Your task to perform on an android device: Turn off the flashlight Image 0: 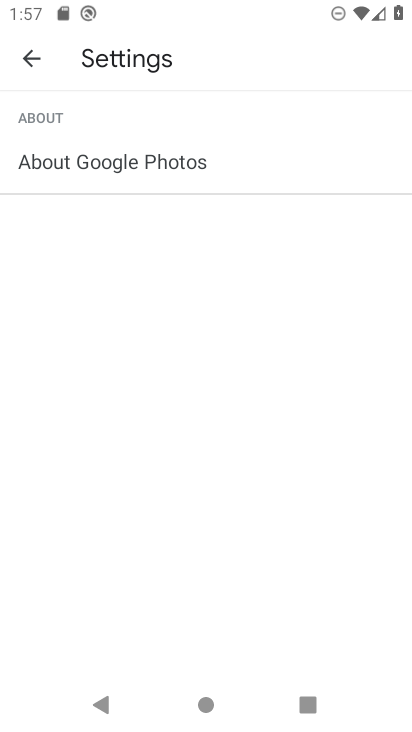
Step 0: press home button
Your task to perform on an android device: Turn off the flashlight Image 1: 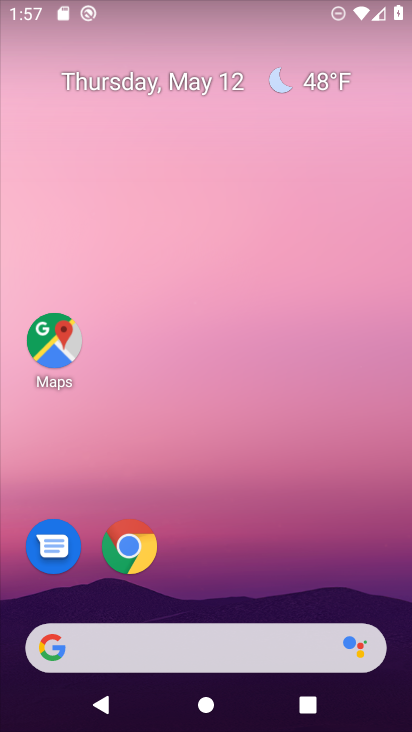
Step 1: drag from (273, 656) to (155, 219)
Your task to perform on an android device: Turn off the flashlight Image 2: 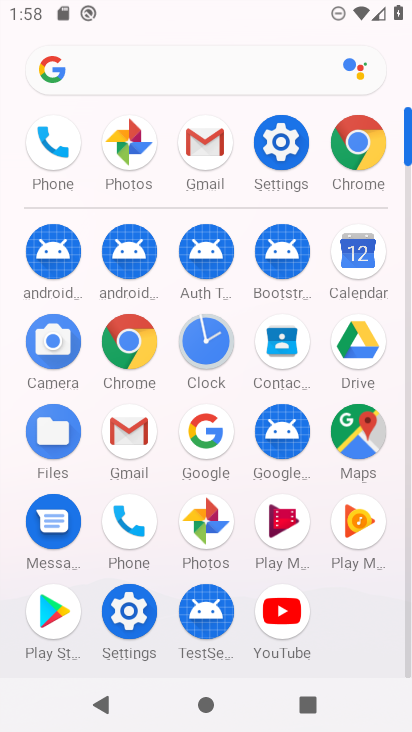
Step 2: click (280, 160)
Your task to perform on an android device: Turn off the flashlight Image 3: 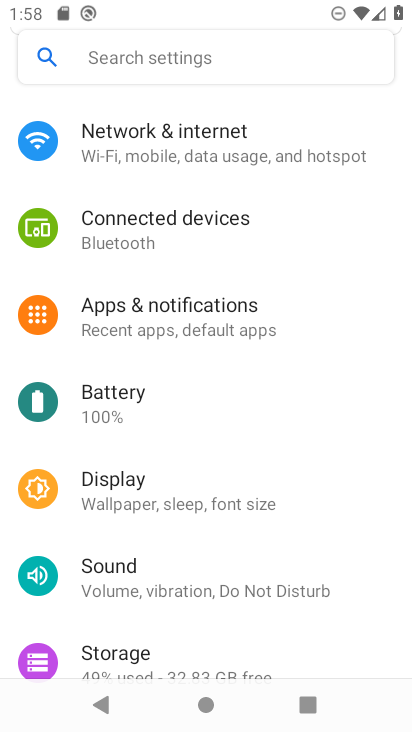
Step 3: click (146, 63)
Your task to perform on an android device: Turn off the flashlight Image 4: 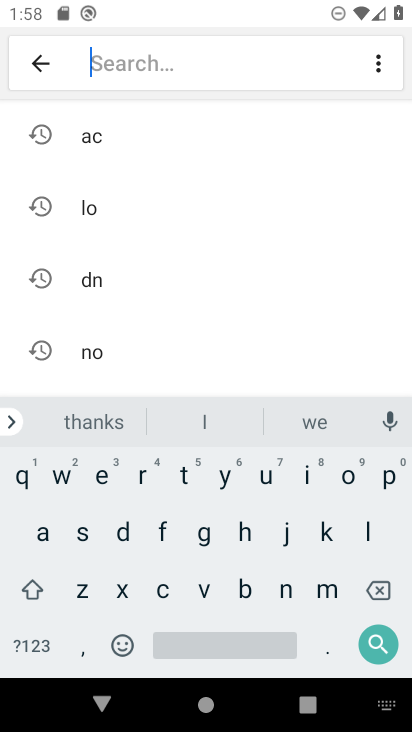
Step 4: click (163, 545)
Your task to perform on an android device: Turn off the flashlight Image 5: 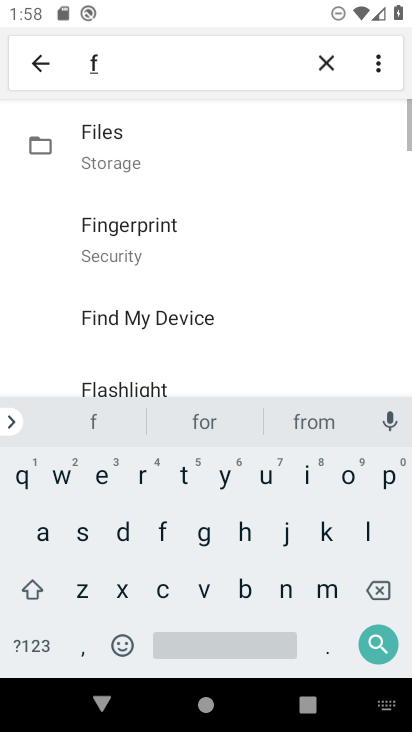
Step 5: click (363, 536)
Your task to perform on an android device: Turn off the flashlight Image 6: 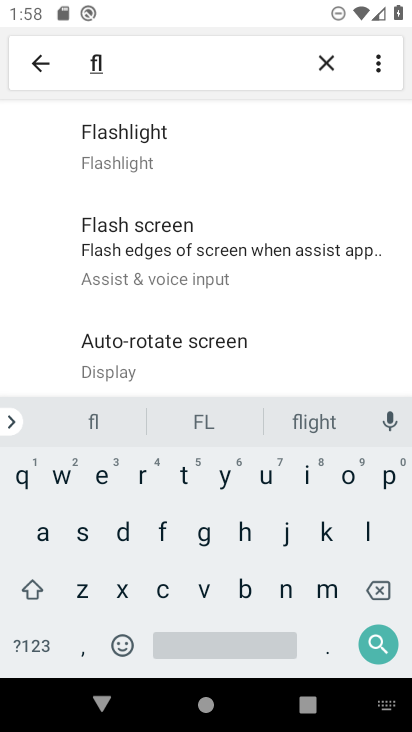
Step 6: click (203, 156)
Your task to perform on an android device: Turn off the flashlight Image 7: 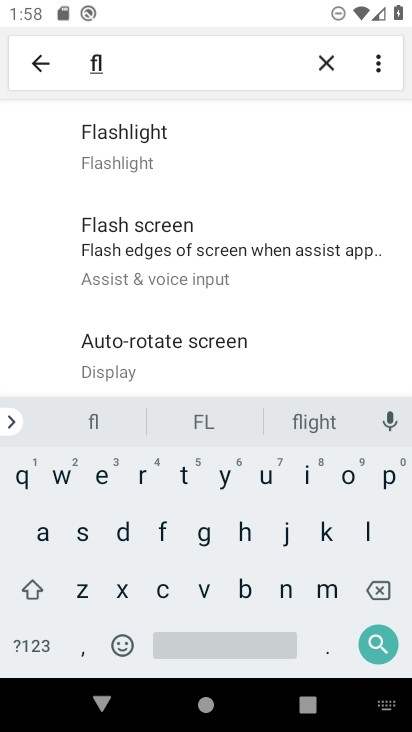
Step 7: task complete